Your task to perform on an android device: install app "LiveIn - Share Your Moment" Image 0: 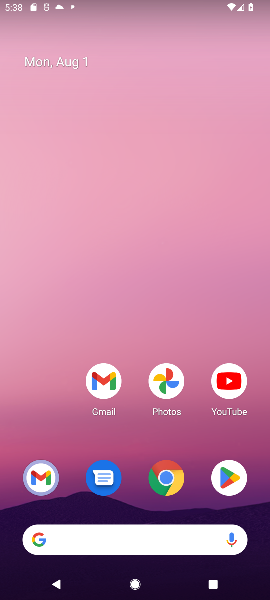
Step 0: click (227, 483)
Your task to perform on an android device: install app "LiveIn - Share Your Moment" Image 1: 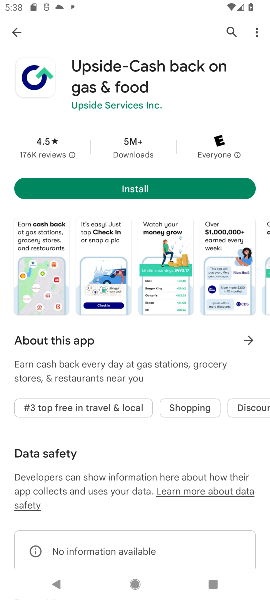
Step 1: click (225, 28)
Your task to perform on an android device: install app "LiveIn - Share Your Moment" Image 2: 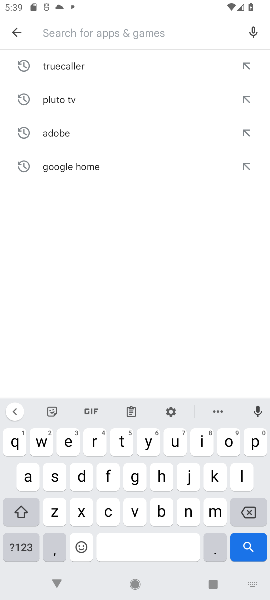
Step 2: click (236, 474)
Your task to perform on an android device: install app "LiveIn - Share Your Moment" Image 3: 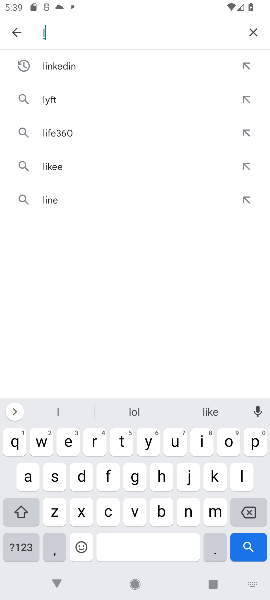
Step 3: click (196, 439)
Your task to perform on an android device: install app "LiveIn - Share Your Moment" Image 4: 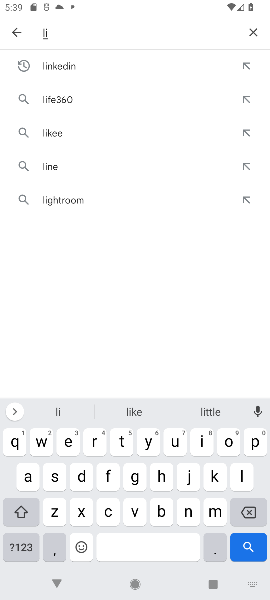
Step 4: click (126, 511)
Your task to perform on an android device: install app "LiveIn - Share Your Moment" Image 5: 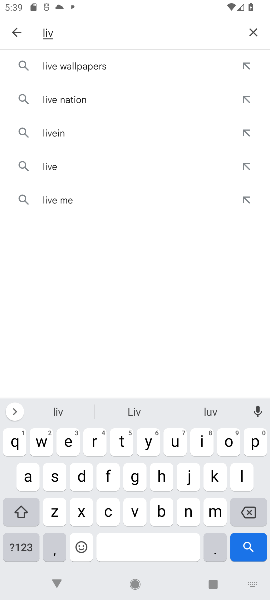
Step 5: click (74, 134)
Your task to perform on an android device: install app "LiveIn - Share Your Moment" Image 6: 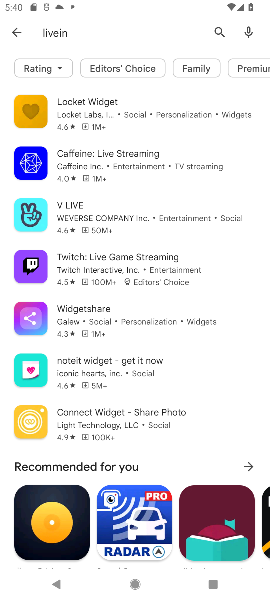
Step 6: task complete